Your task to perform on an android device: Do I have any events this weekend? Image 0: 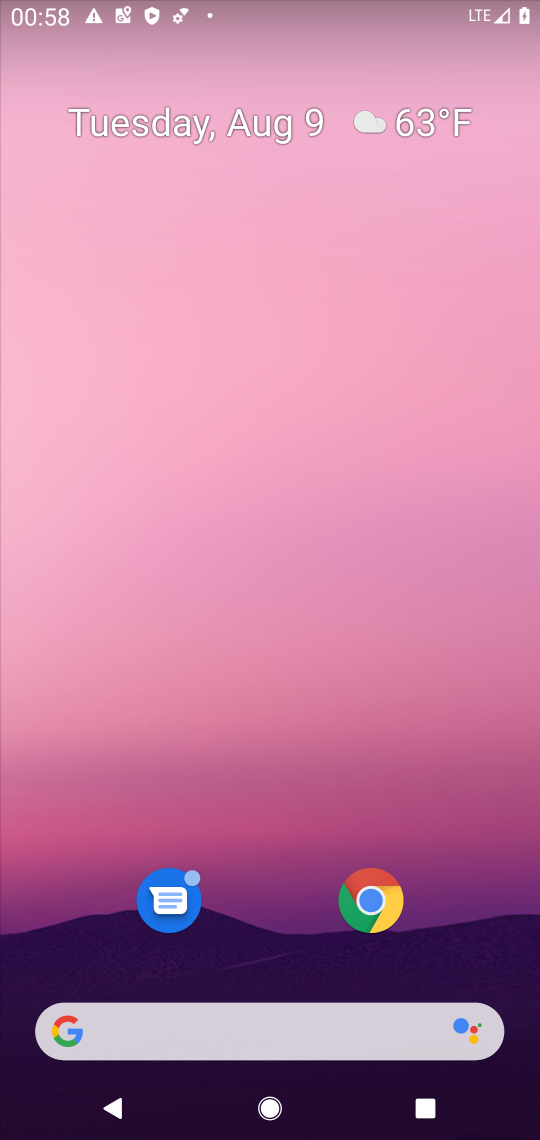
Step 0: press home button
Your task to perform on an android device: Do I have any events this weekend? Image 1: 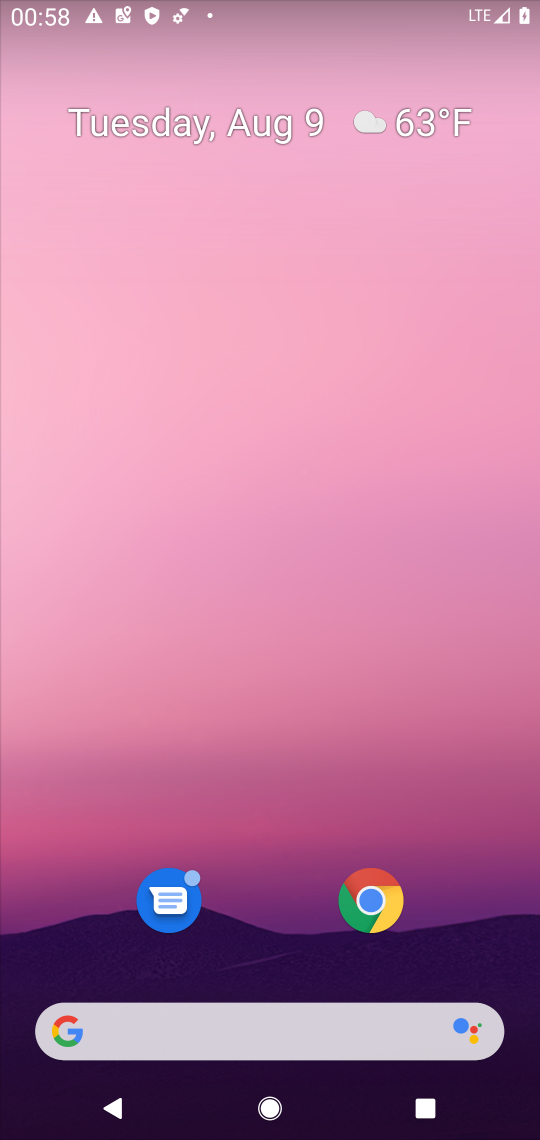
Step 1: drag from (447, 923) to (474, 178)
Your task to perform on an android device: Do I have any events this weekend? Image 2: 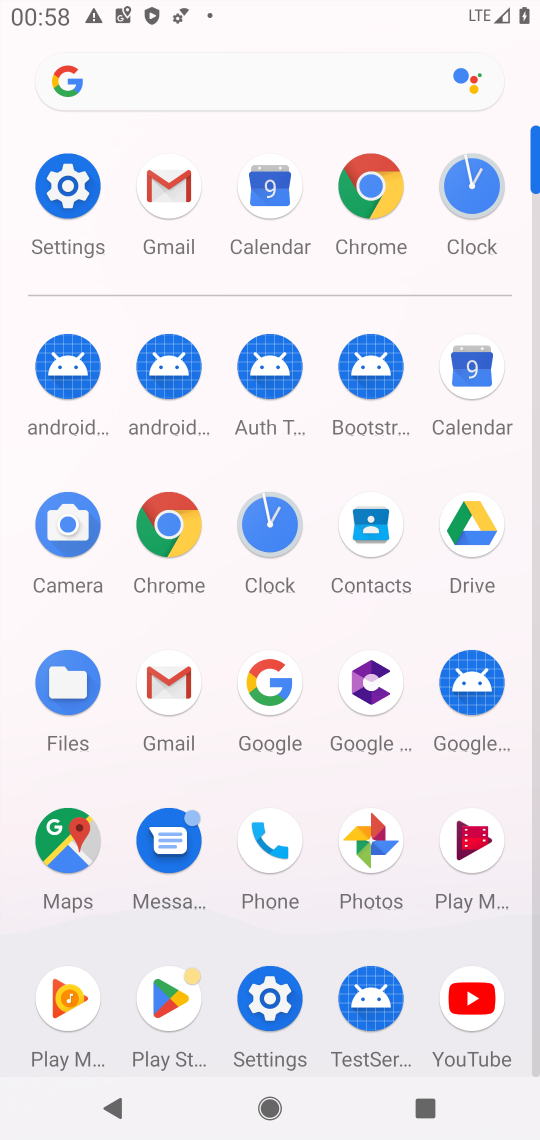
Step 2: click (465, 389)
Your task to perform on an android device: Do I have any events this weekend? Image 3: 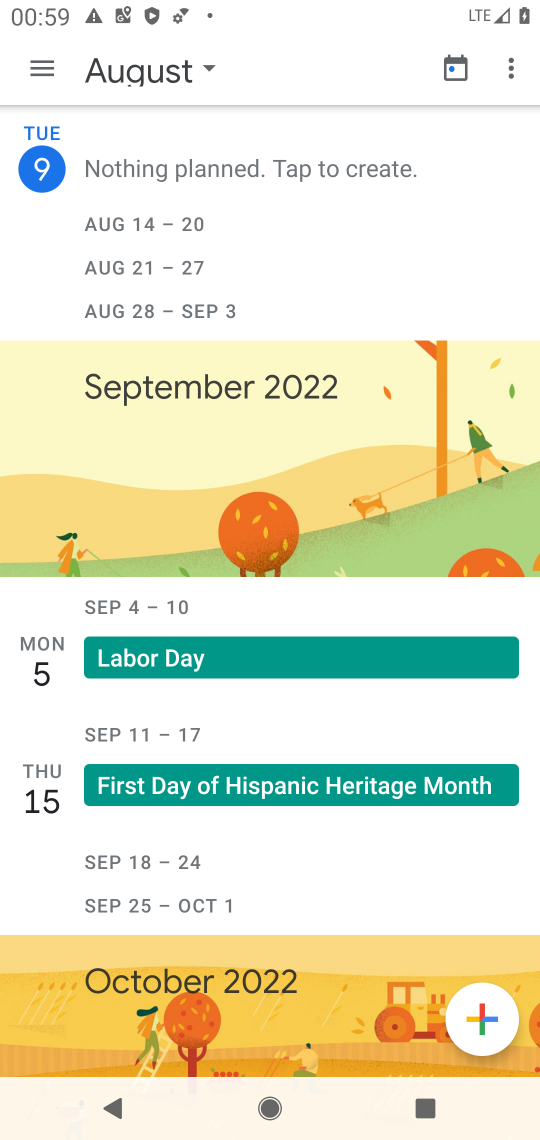
Step 3: task complete